Your task to perform on an android device: toggle priority inbox in the gmail app Image 0: 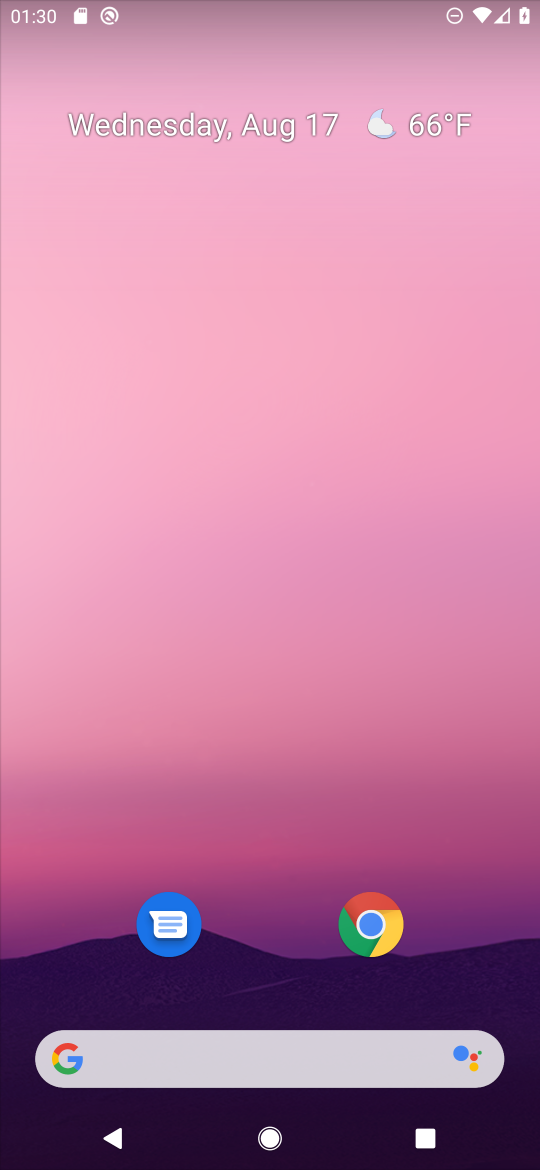
Step 0: drag from (271, 977) to (297, 168)
Your task to perform on an android device: toggle priority inbox in the gmail app Image 1: 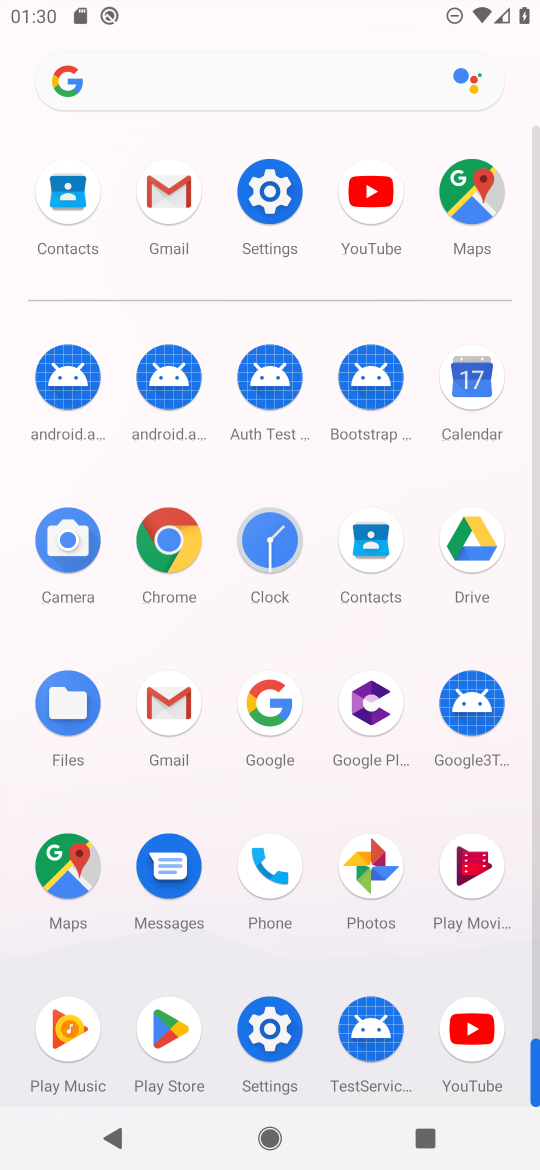
Step 1: click (164, 210)
Your task to perform on an android device: toggle priority inbox in the gmail app Image 2: 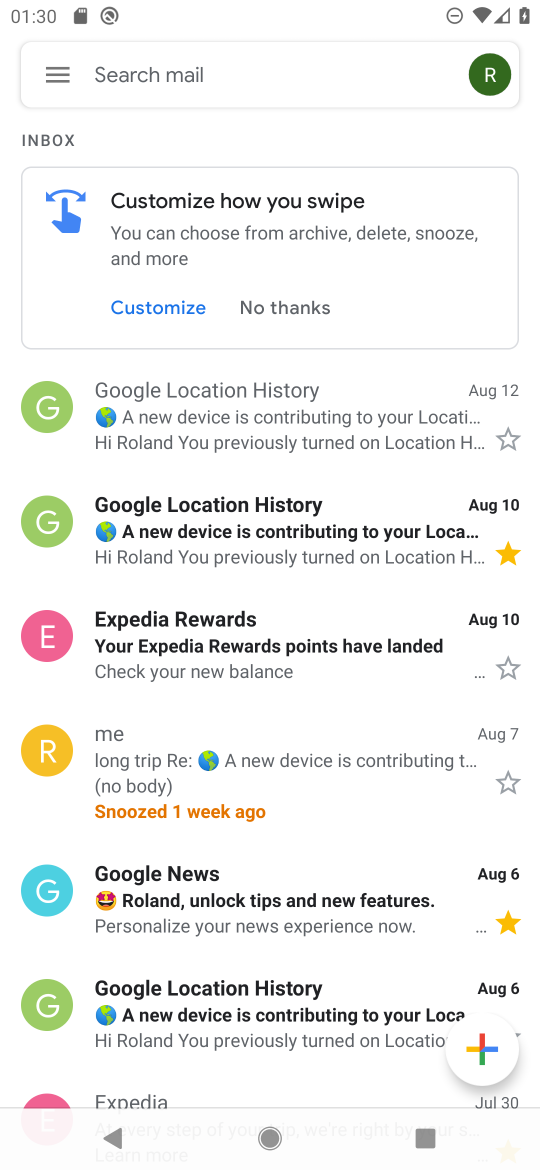
Step 2: click (55, 83)
Your task to perform on an android device: toggle priority inbox in the gmail app Image 3: 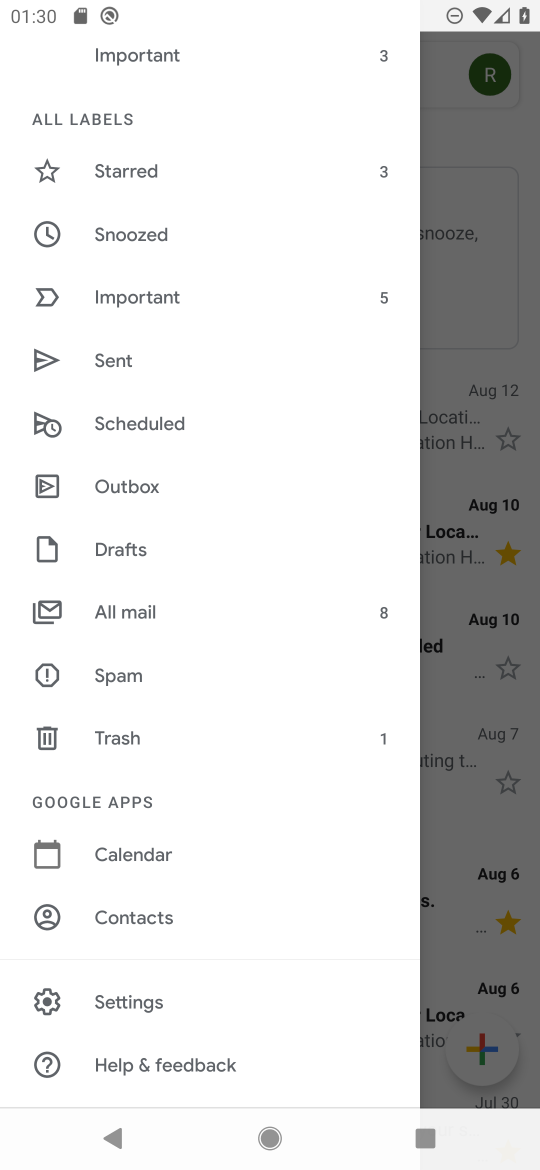
Step 3: drag from (205, 1016) to (225, 224)
Your task to perform on an android device: toggle priority inbox in the gmail app Image 4: 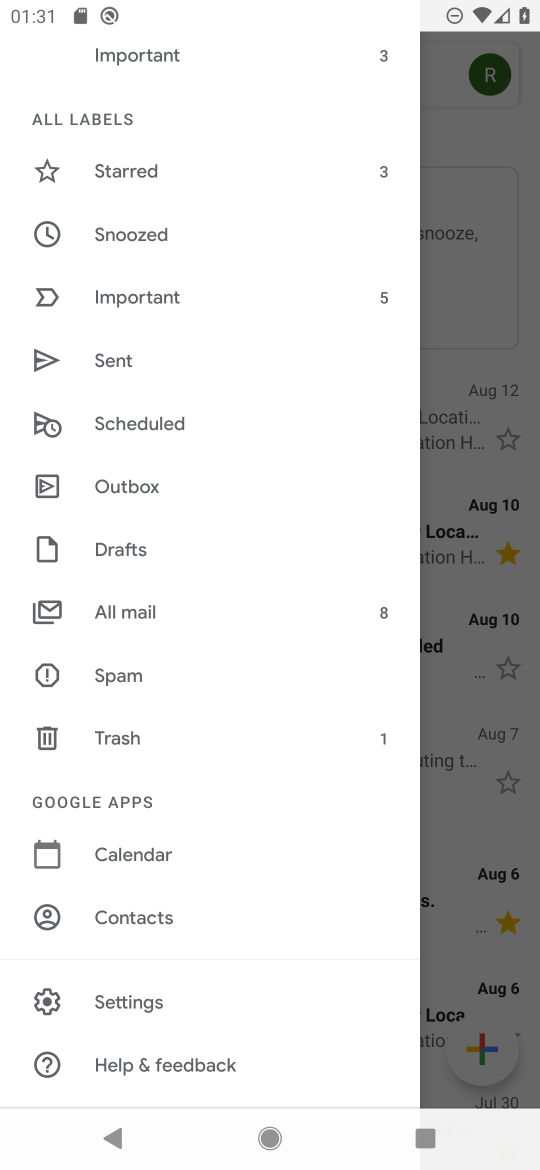
Step 4: click (142, 1000)
Your task to perform on an android device: toggle priority inbox in the gmail app Image 5: 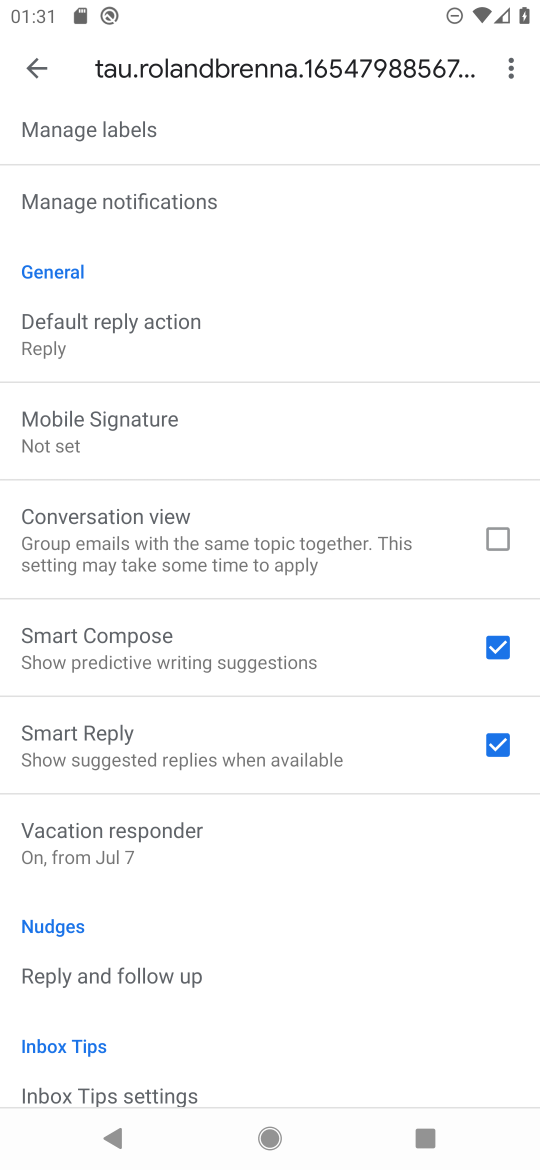
Step 5: drag from (350, 210) to (388, 1124)
Your task to perform on an android device: toggle priority inbox in the gmail app Image 6: 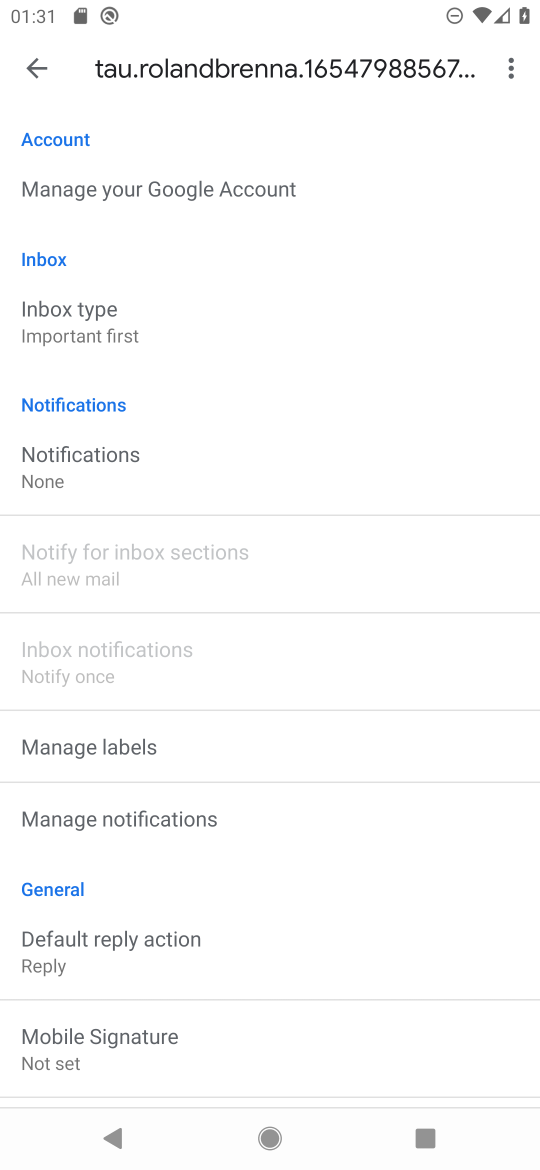
Step 6: drag from (406, 933) to (408, 1045)
Your task to perform on an android device: toggle priority inbox in the gmail app Image 7: 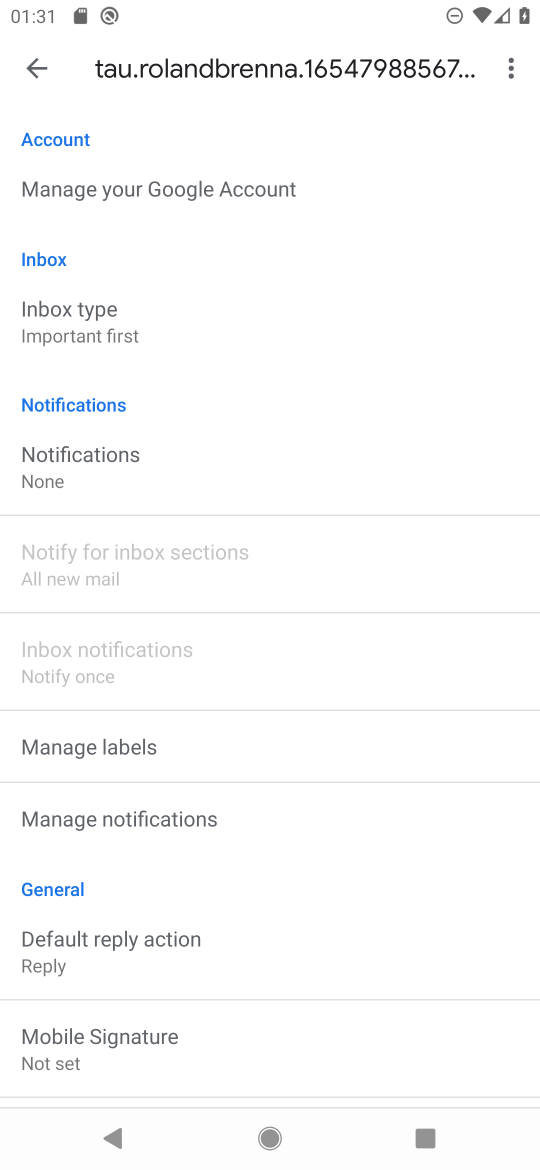
Step 7: click (132, 342)
Your task to perform on an android device: toggle priority inbox in the gmail app Image 8: 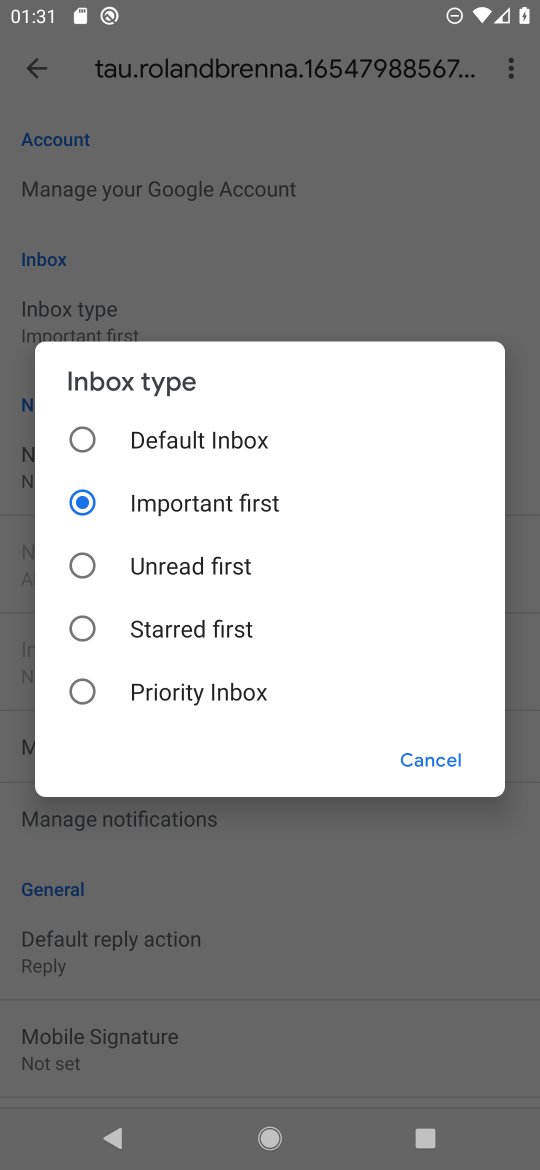
Step 8: click (215, 693)
Your task to perform on an android device: toggle priority inbox in the gmail app Image 9: 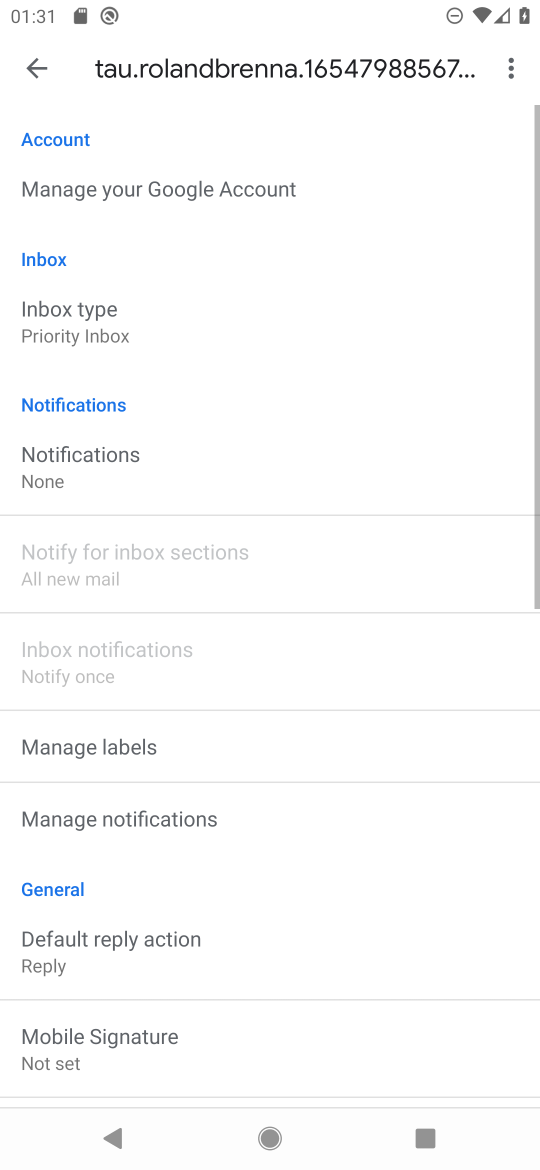
Step 9: task complete